Your task to perform on an android device: toggle sleep mode Image 0: 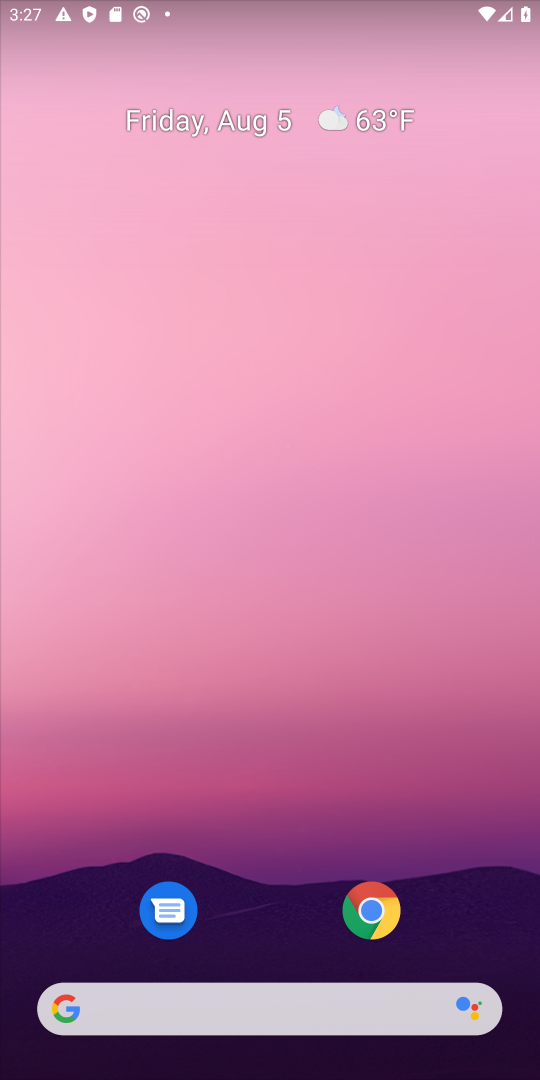
Step 0: drag from (481, 916) to (384, 130)
Your task to perform on an android device: toggle sleep mode Image 1: 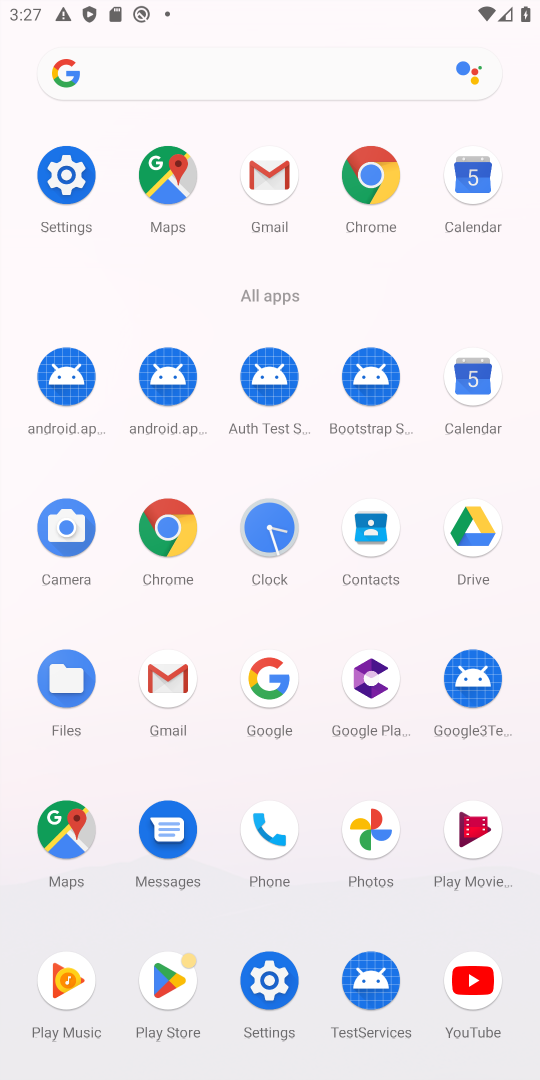
Step 1: click (69, 194)
Your task to perform on an android device: toggle sleep mode Image 2: 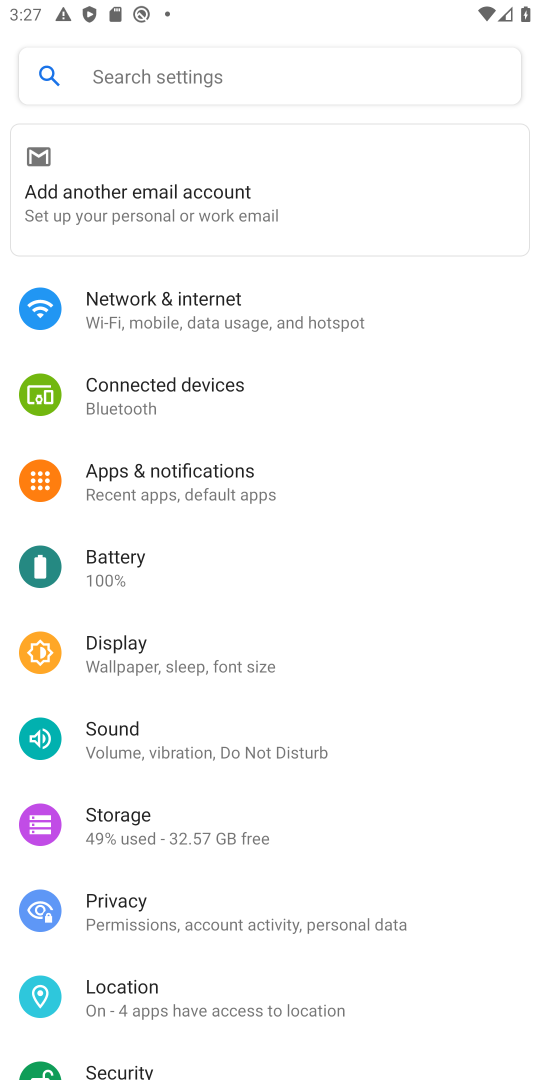
Step 2: click (219, 674)
Your task to perform on an android device: toggle sleep mode Image 3: 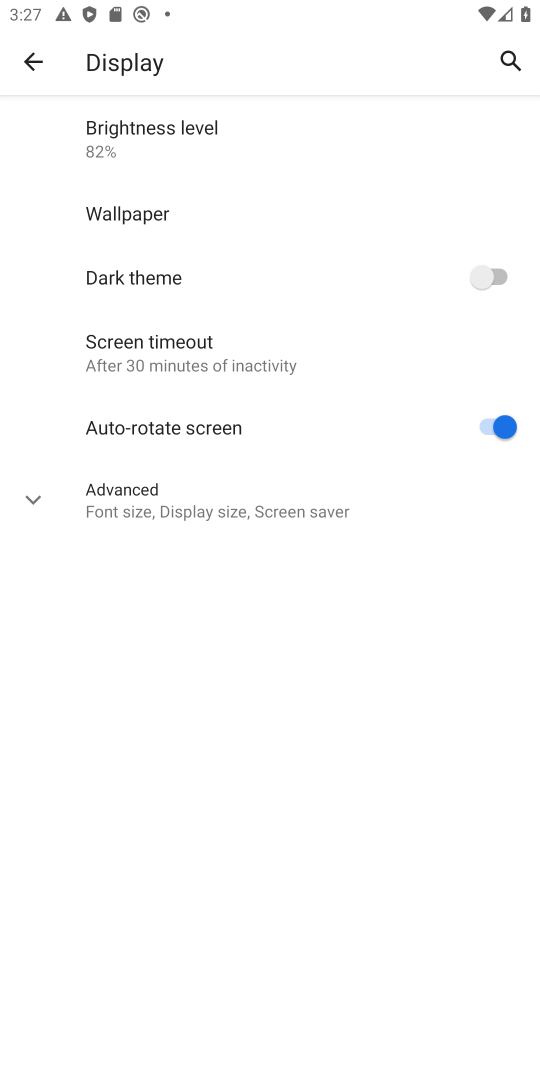
Step 3: click (354, 508)
Your task to perform on an android device: toggle sleep mode Image 4: 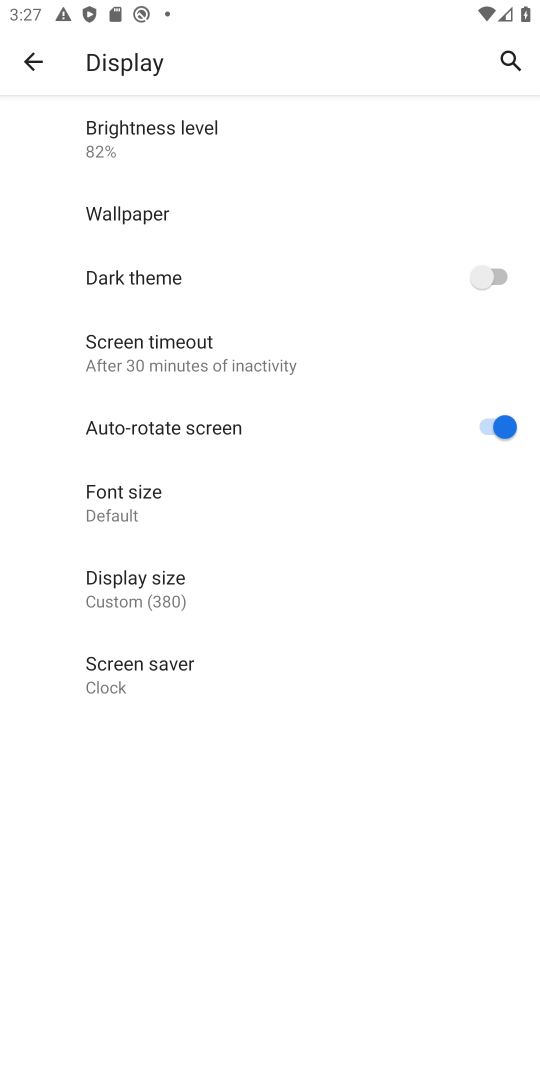
Step 4: task complete